Your task to perform on an android device: Open location settings Image 0: 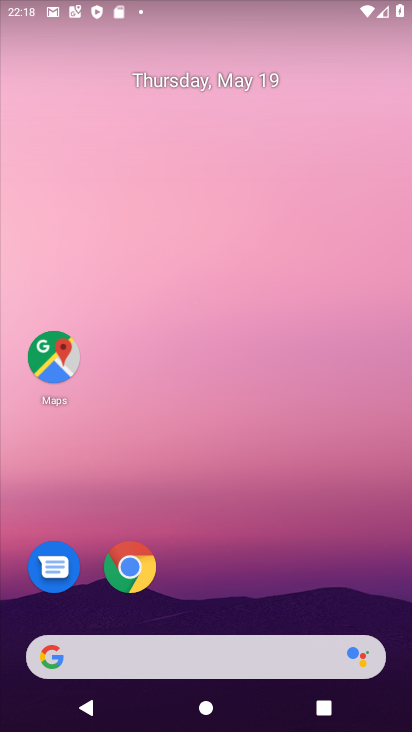
Step 0: press home button
Your task to perform on an android device: Open location settings Image 1: 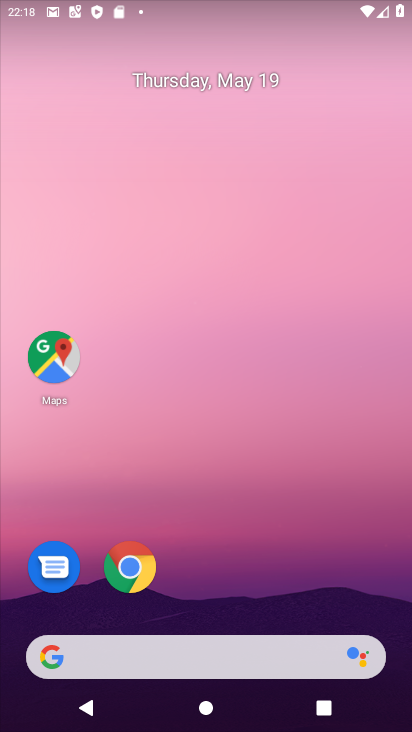
Step 1: drag from (236, 603) to (319, 268)
Your task to perform on an android device: Open location settings Image 2: 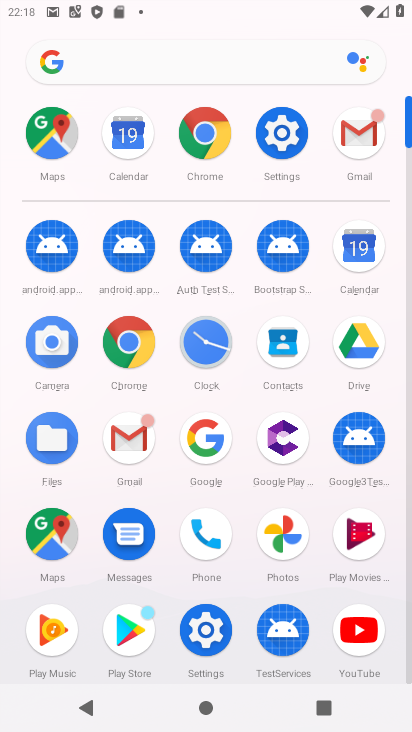
Step 2: click (285, 122)
Your task to perform on an android device: Open location settings Image 3: 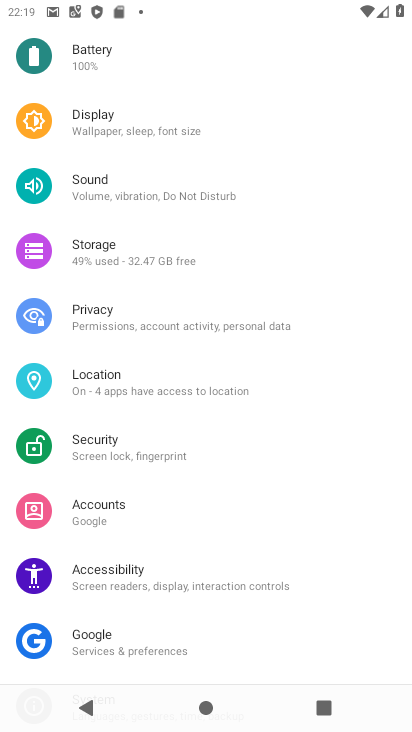
Step 3: click (132, 367)
Your task to perform on an android device: Open location settings Image 4: 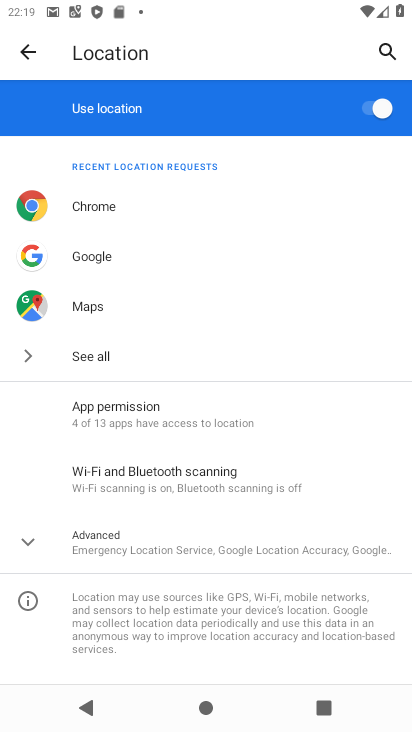
Step 4: click (38, 539)
Your task to perform on an android device: Open location settings Image 5: 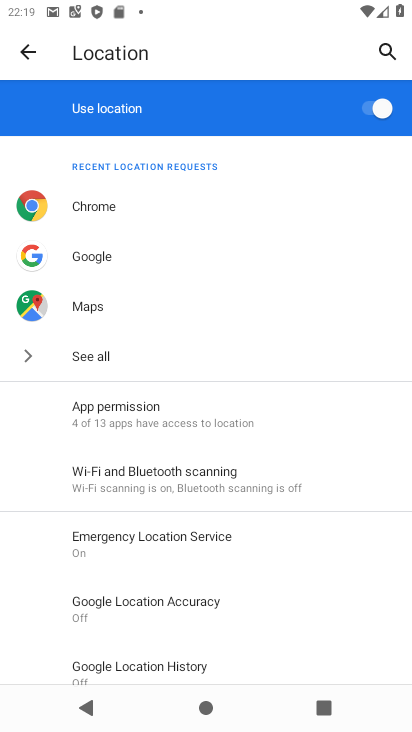
Step 5: task complete